Your task to perform on an android device: open app "The Home Depot" Image 0: 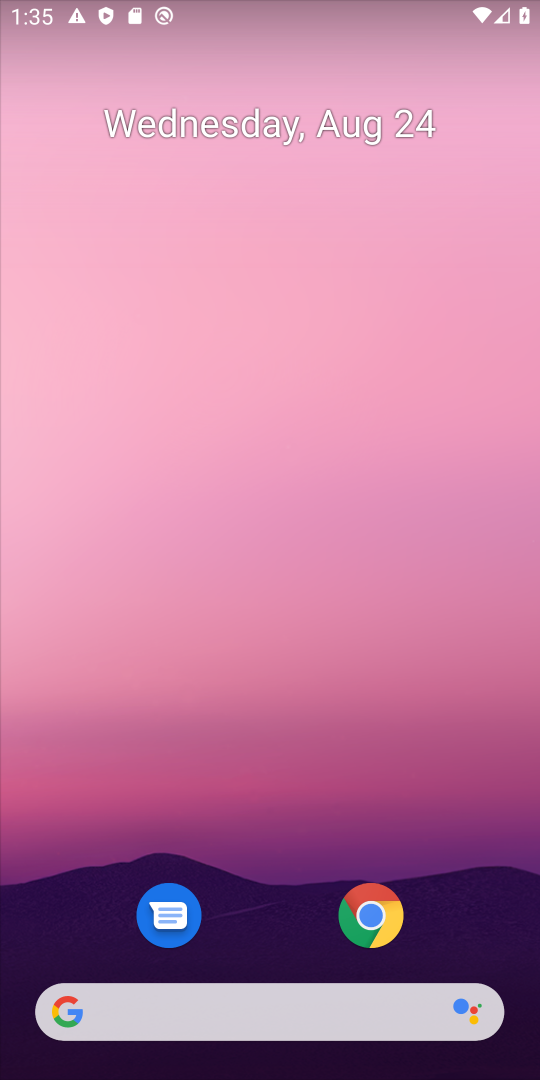
Step 0: drag from (265, 872) to (300, 262)
Your task to perform on an android device: open app "The Home Depot" Image 1: 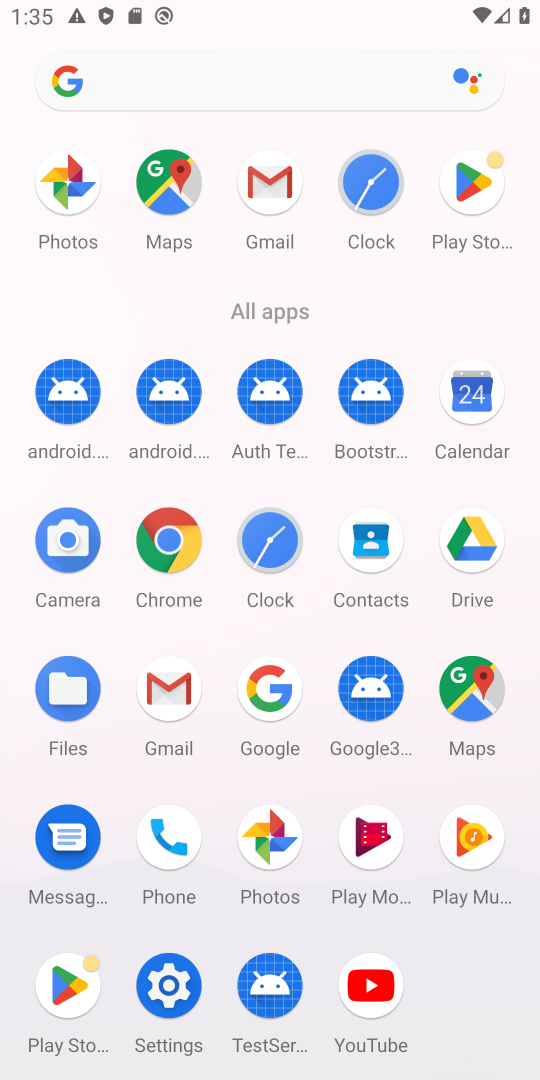
Step 1: click (461, 182)
Your task to perform on an android device: open app "The Home Depot" Image 2: 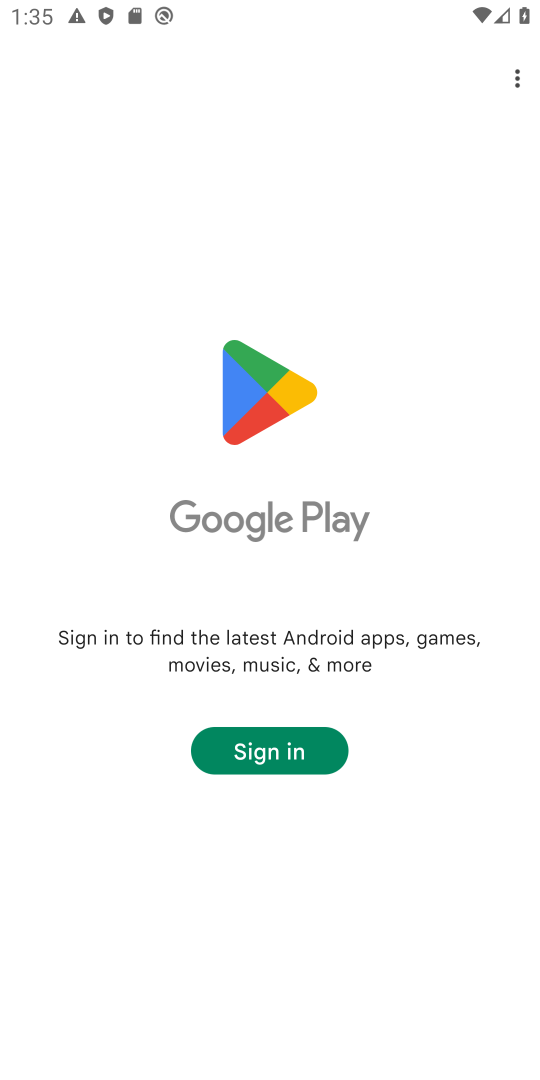
Step 2: click (317, 747)
Your task to perform on an android device: open app "The Home Depot" Image 3: 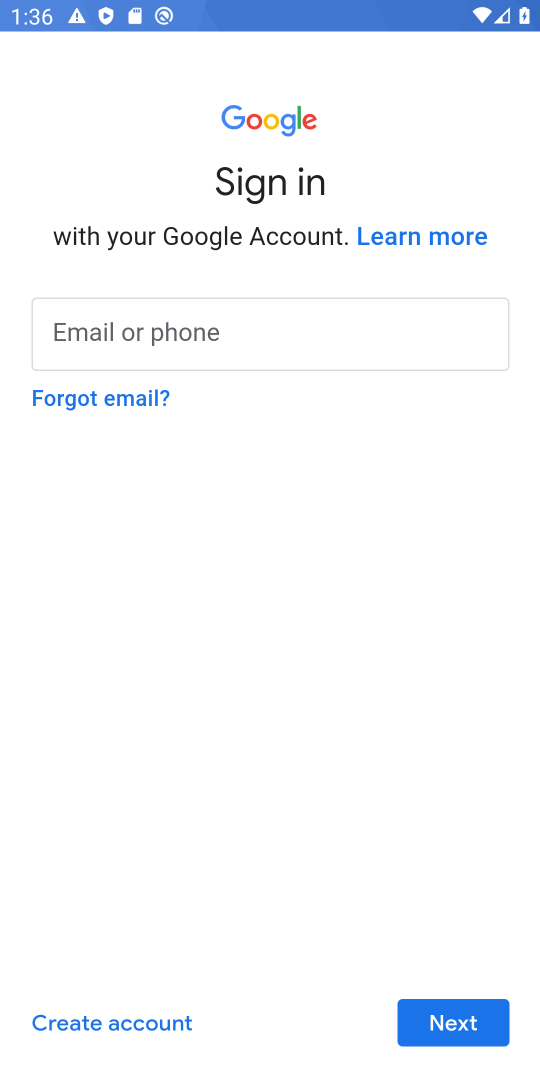
Step 3: task complete